Your task to perform on an android device: snooze an email in the gmail app Image 0: 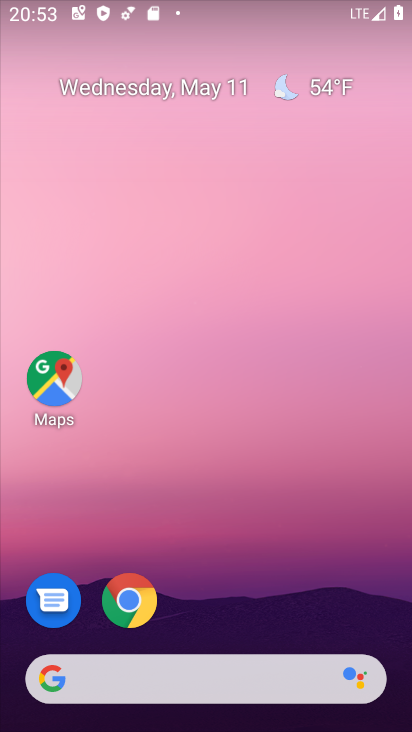
Step 0: drag from (255, 544) to (261, 82)
Your task to perform on an android device: snooze an email in the gmail app Image 1: 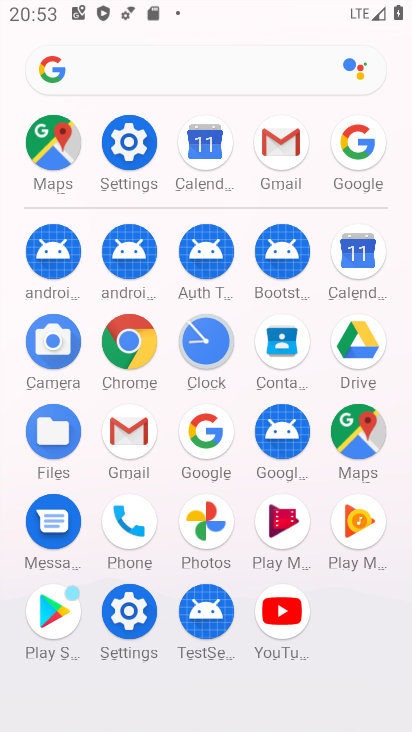
Step 1: click (277, 145)
Your task to perform on an android device: snooze an email in the gmail app Image 2: 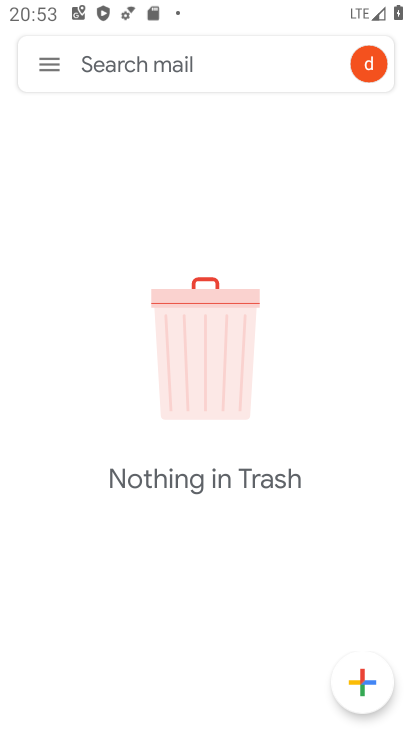
Step 2: click (54, 71)
Your task to perform on an android device: snooze an email in the gmail app Image 3: 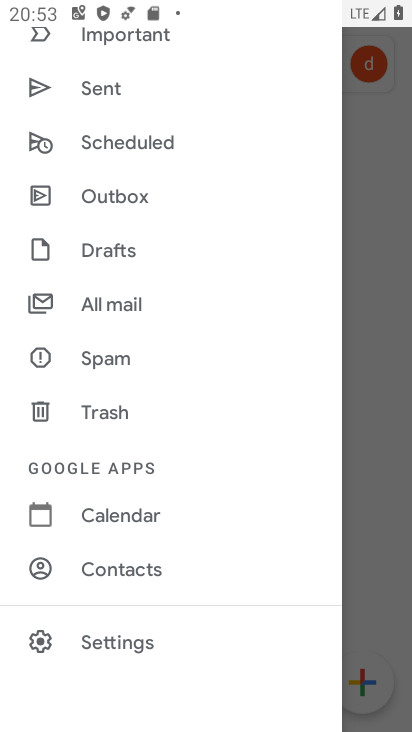
Step 3: drag from (123, 388) to (164, 493)
Your task to perform on an android device: snooze an email in the gmail app Image 4: 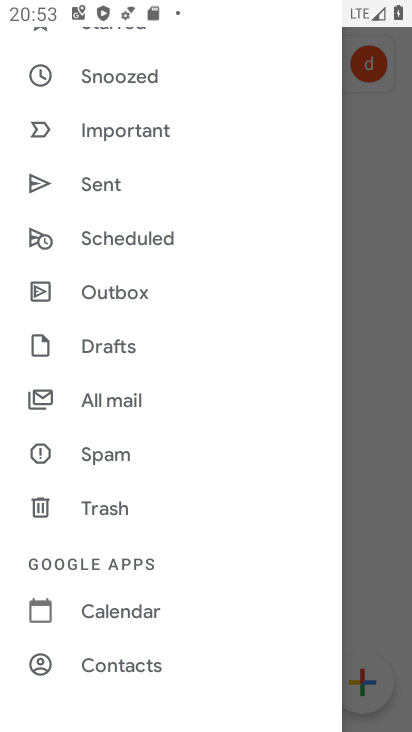
Step 4: drag from (134, 308) to (165, 437)
Your task to perform on an android device: snooze an email in the gmail app Image 5: 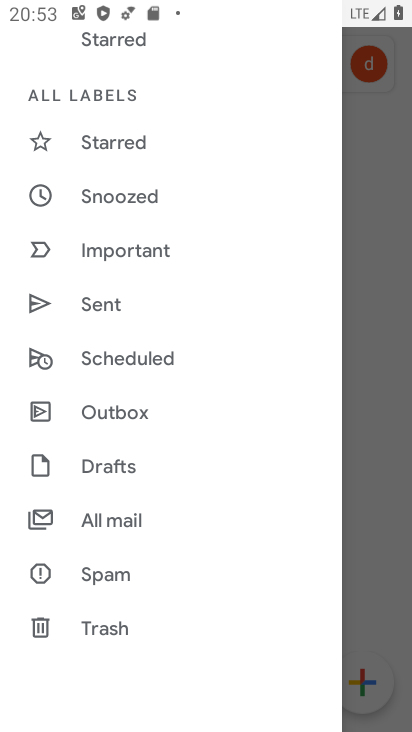
Step 5: click (145, 194)
Your task to perform on an android device: snooze an email in the gmail app Image 6: 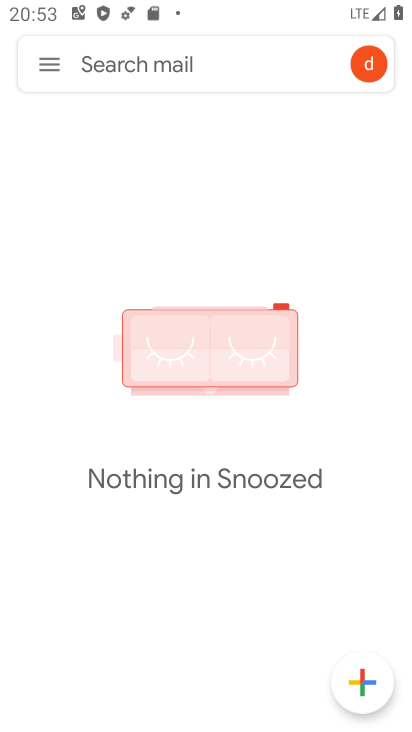
Step 6: click (52, 62)
Your task to perform on an android device: snooze an email in the gmail app Image 7: 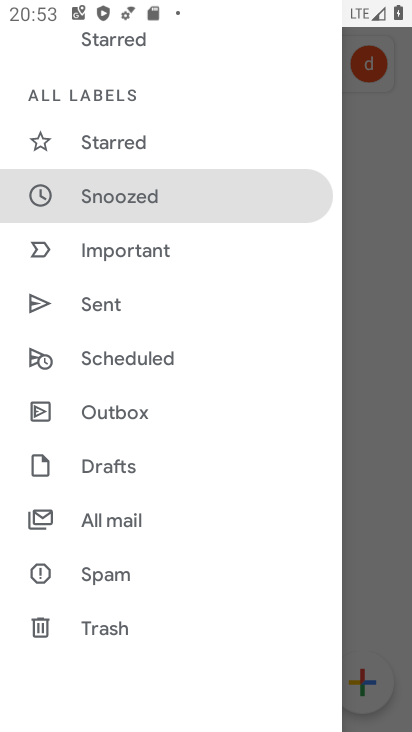
Step 7: drag from (198, 141) to (260, 317)
Your task to perform on an android device: snooze an email in the gmail app Image 8: 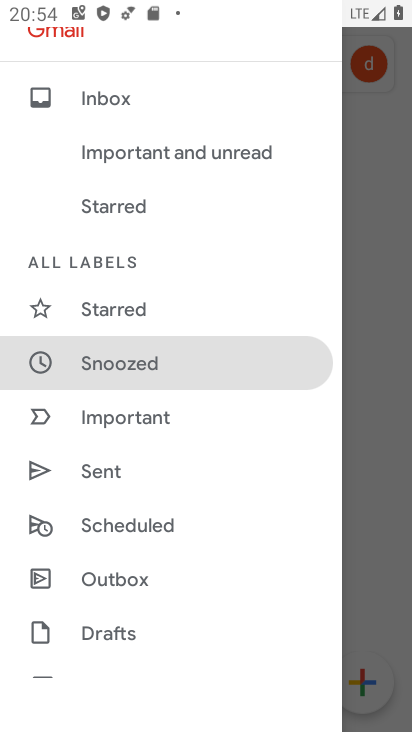
Step 8: drag from (123, 544) to (150, 436)
Your task to perform on an android device: snooze an email in the gmail app Image 9: 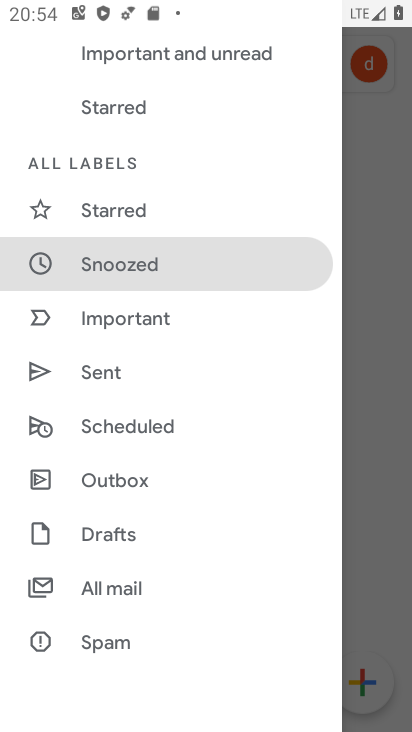
Step 9: click (102, 574)
Your task to perform on an android device: snooze an email in the gmail app Image 10: 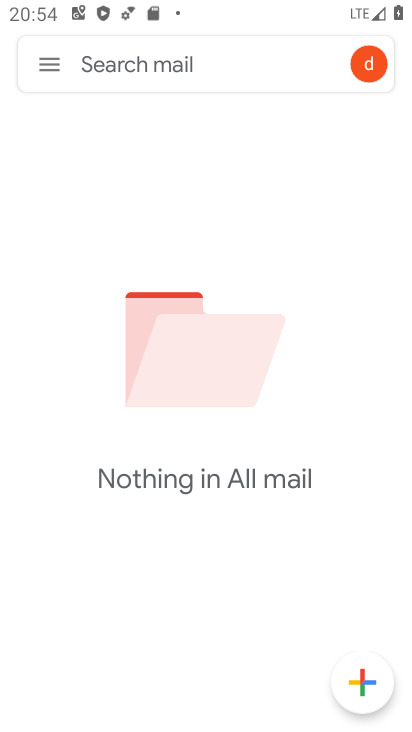
Step 10: task complete